Your task to perform on an android device: check battery use Image 0: 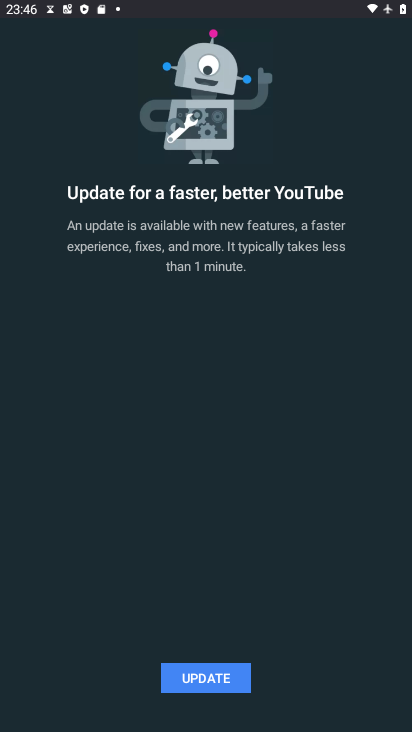
Step 0: press home button
Your task to perform on an android device: check battery use Image 1: 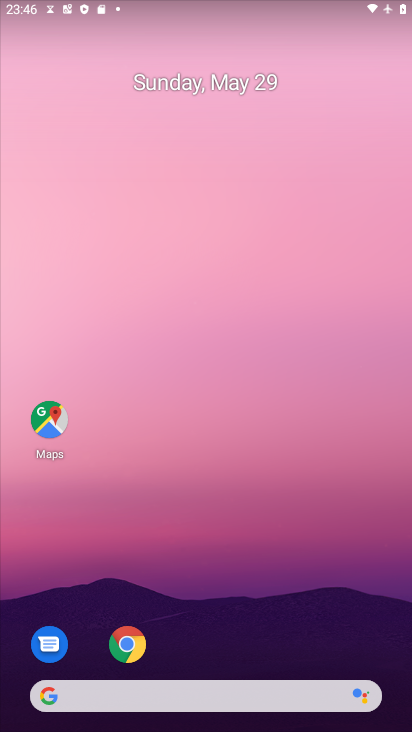
Step 1: drag from (244, 618) to (236, 237)
Your task to perform on an android device: check battery use Image 2: 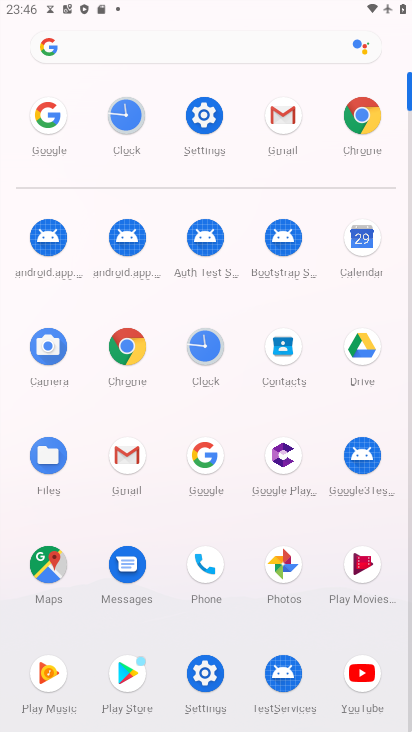
Step 2: click (253, 114)
Your task to perform on an android device: check battery use Image 3: 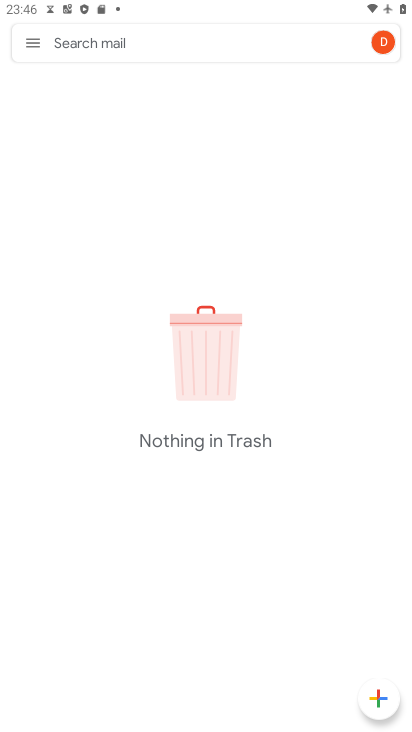
Step 3: press home button
Your task to perform on an android device: check battery use Image 4: 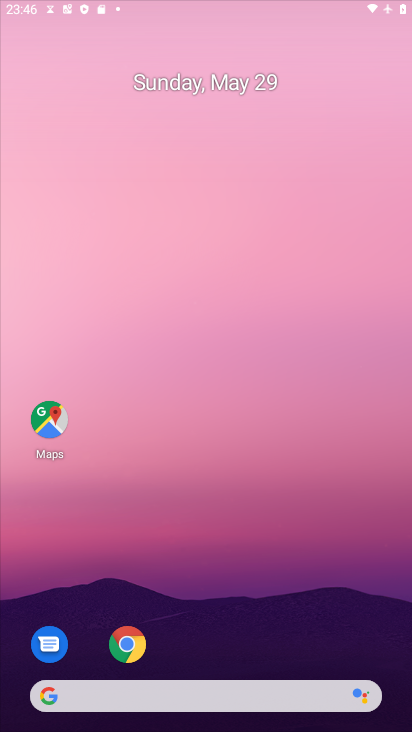
Step 4: drag from (223, 601) to (226, 197)
Your task to perform on an android device: check battery use Image 5: 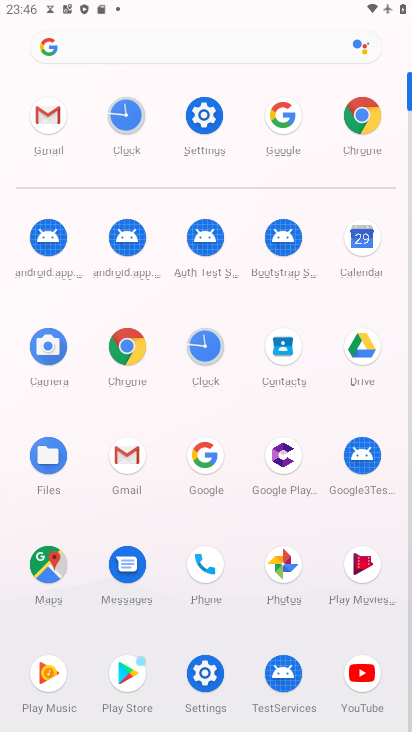
Step 5: click (204, 106)
Your task to perform on an android device: check battery use Image 6: 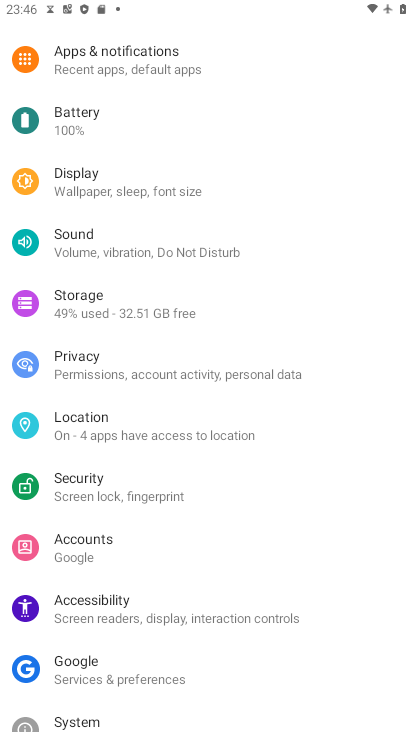
Step 6: click (90, 118)
Your task to perform on an android device: check battery use Image 7: 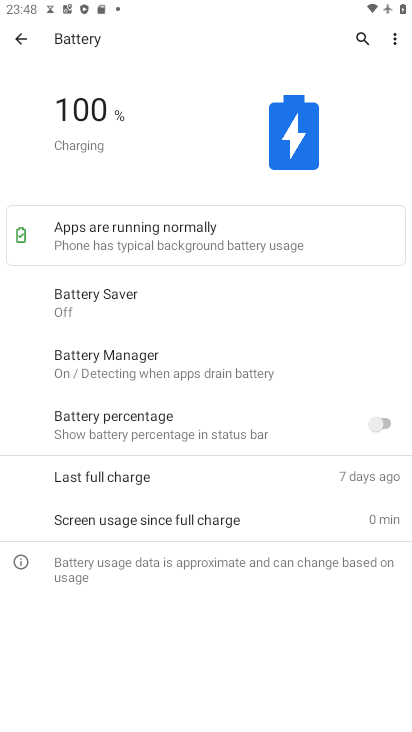
Step 7: task complete